Your task to perform on an android device: turn on priority inbox in the gmail app Image 0: 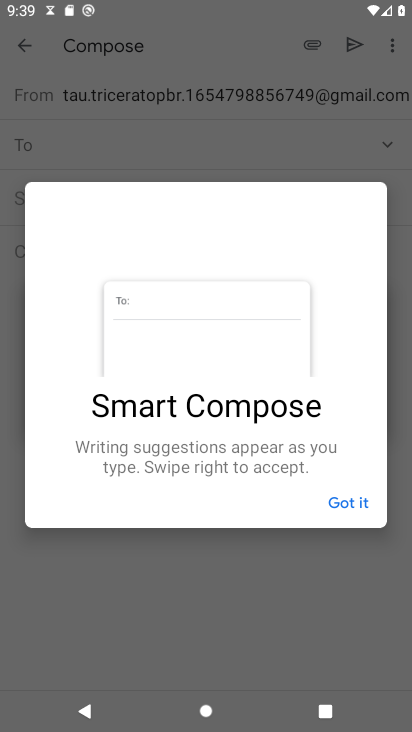
Step 0: drag from (171, 621) to (318, 608)
Your task to perform on an android device: turn on priority inbox in the gmail app Image 1: 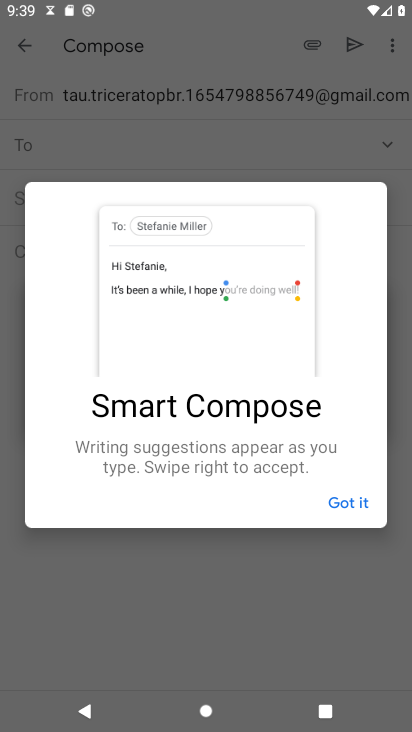
Step 1: press home button
Your task to perform on an android device: turn on priority inbox in the gmail app Image 2: 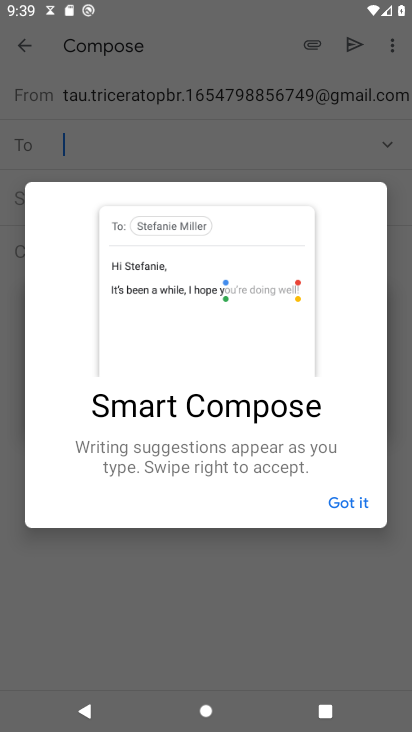
Step 2: drag from (318, 608) to (392, 496)
Your task to perform on an android device: turn on priority inbox in the gmail app Image 3: 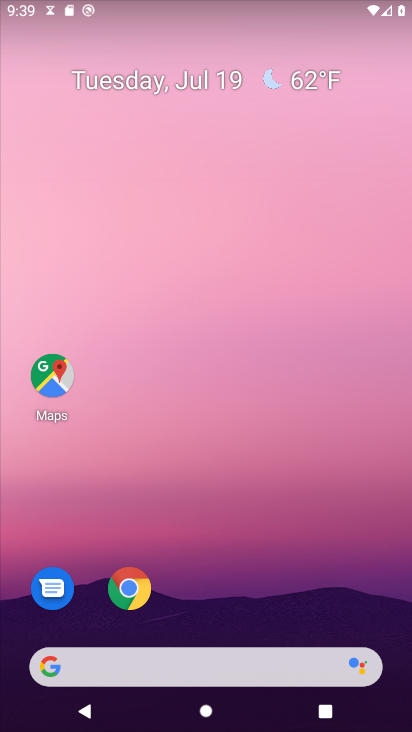
Step 3: drag from (192, 197) to (193, 131)
Your task to perform on an android device: turn on priority inbox in the gmail app Image 4: 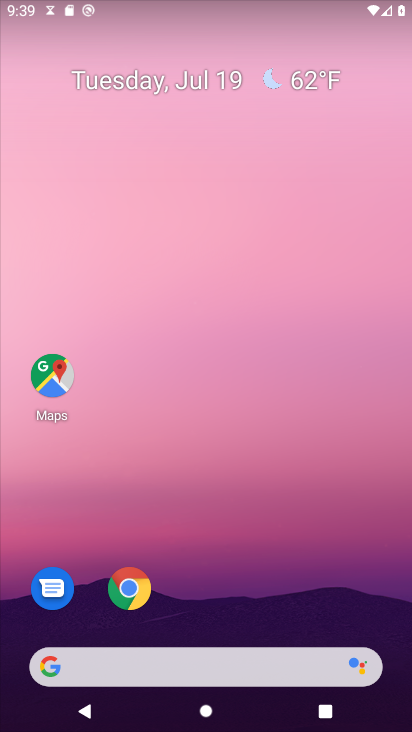
Step 4: drag from (184, 611) to (250, 123)
Your task to perform on an android device: turn on priority inbox in the gmail app Image 5: 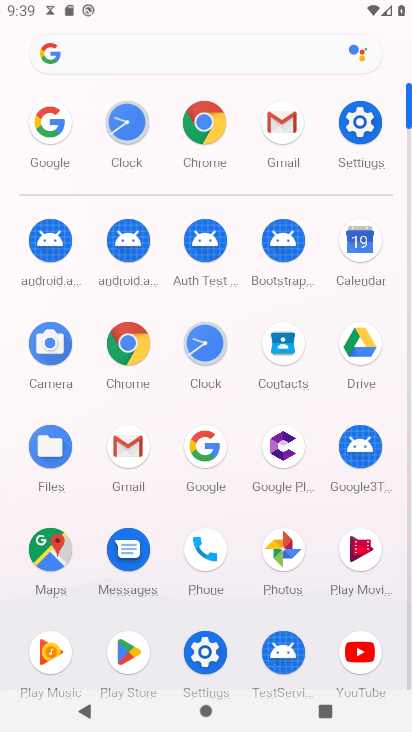
Step 5: click (281, 126)
Your task to perform on an android device: turn on priority inbox in the gmail app Image 6: 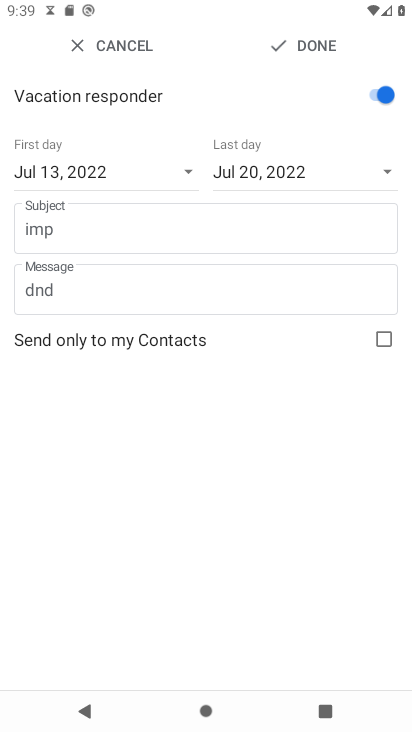
Step 6: click (311, 50)
Your task to perform on an android device: turn on priority inbox in the gmail app Image 7: 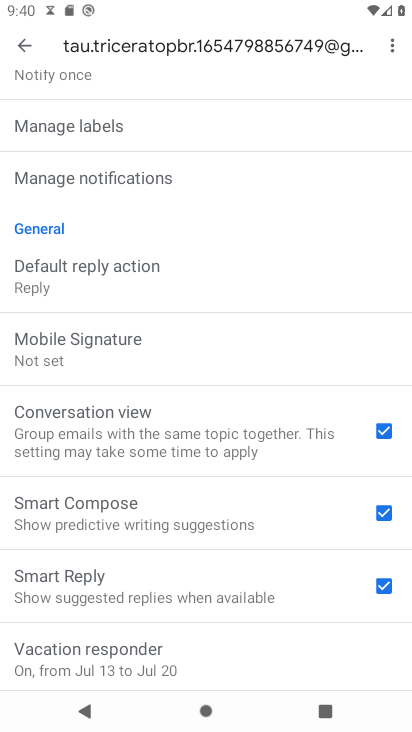
Step 7: task complete